Your task to perform on an android device: Go to display settings Image 0: 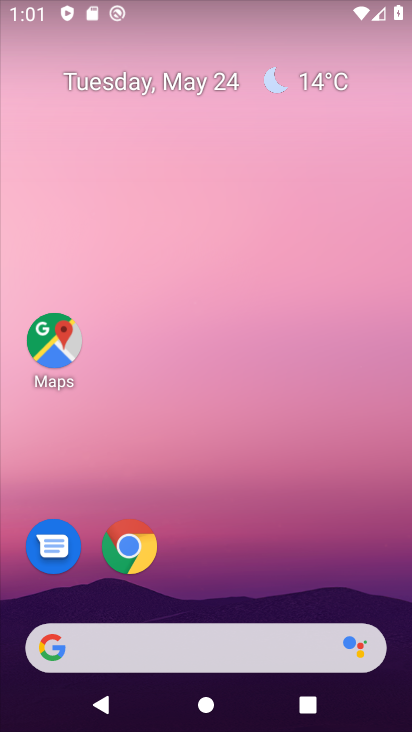
Step 0: drag from (220, 577) to (240, 135)
Your task to perform on an android device: Go to display settings Image 1: 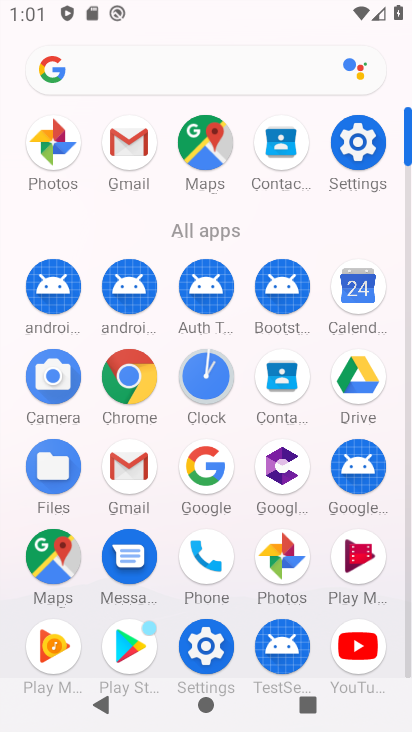
Step 1: click (351, 135)
Your task to perform on an android device: Go to display settings Image 2: 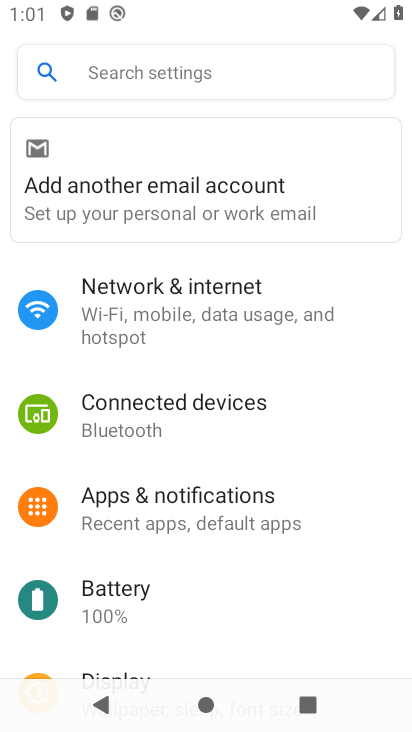
Step 2: drag from (170, 638) to (173, 120)
Your task to perform on an android device: Go to display settings Image 3: 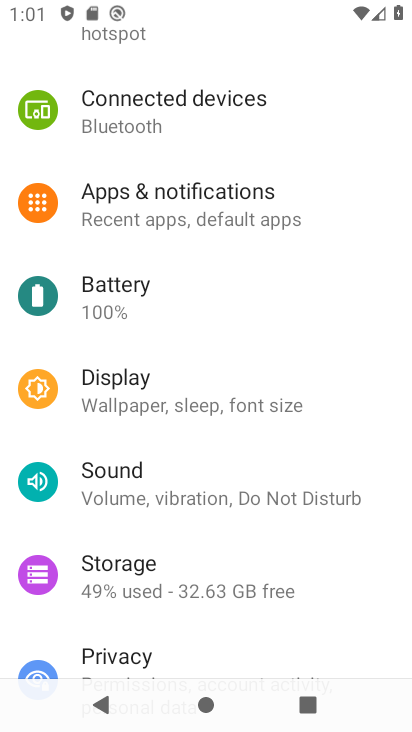
Step 3: click (170, 379)
Your task to perform on an android device: Go to display settings Image 4: 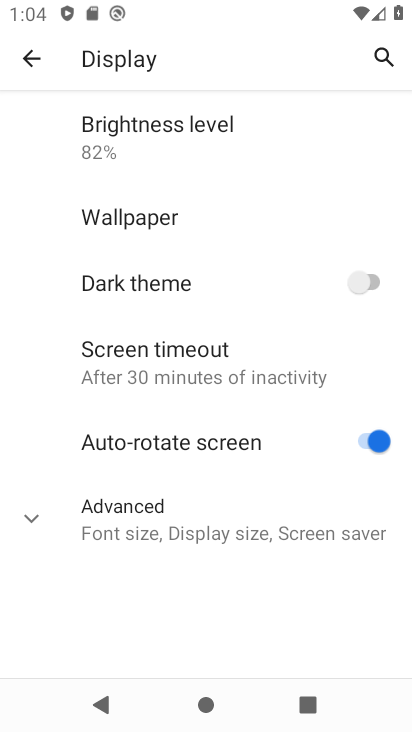
Step 4: task complete